Your task to perform on an android device: toggle show notifications on the lock screen Image 0: 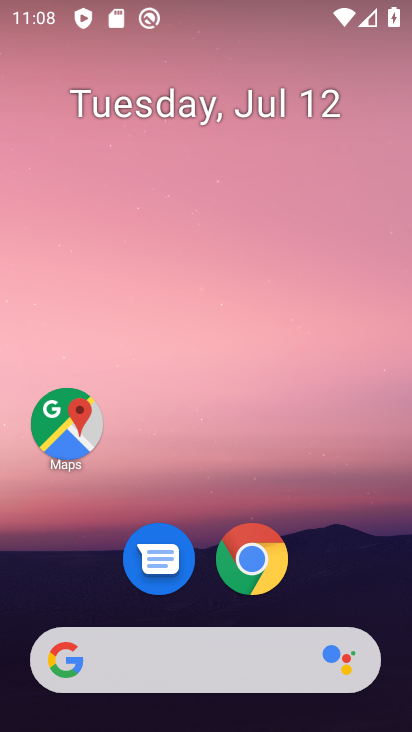
Step 0: drag from (167, 637) to (132, 102)
Your task to perform on an android device: toggle show notifications on the lock screen Image 1: 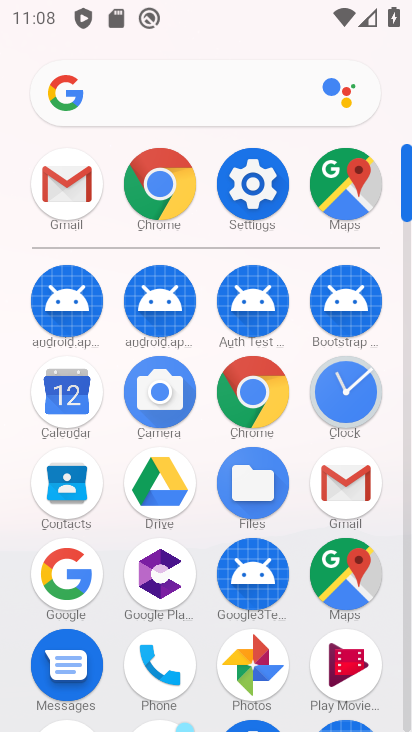
Step 1: drag from (153, 505) to (174, 301)
Your task to perform on an android device: toggle show notifications on the lock screen Image 2: 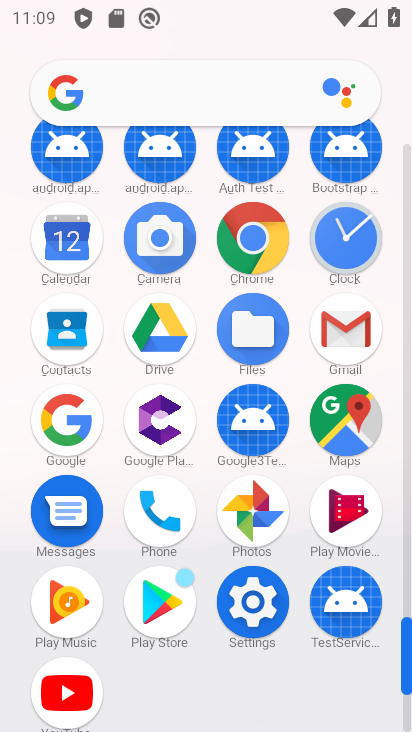
Step 2: click (261, 590)
Your task to perform on an android device: toggle show notifications on the lock screen Image 3: 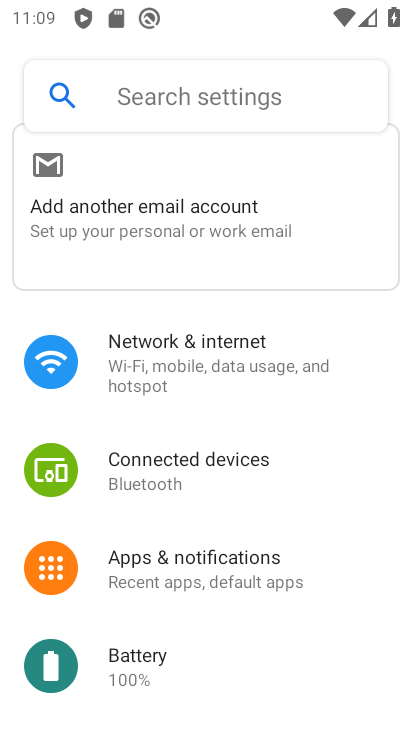
Step 3: click (168, 550)
Your task to perform on an android device: toggle show notifications on the lock screen Image 4: 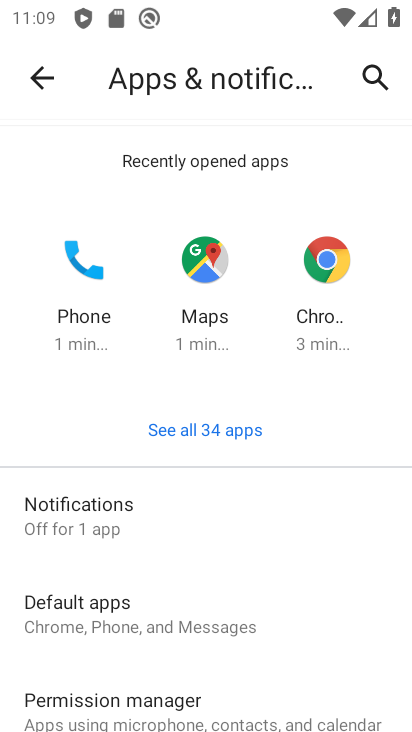
Step 4: click (85, 536)
Your task to perform on an android device: toggle show notifications on the lock screen Image 5: 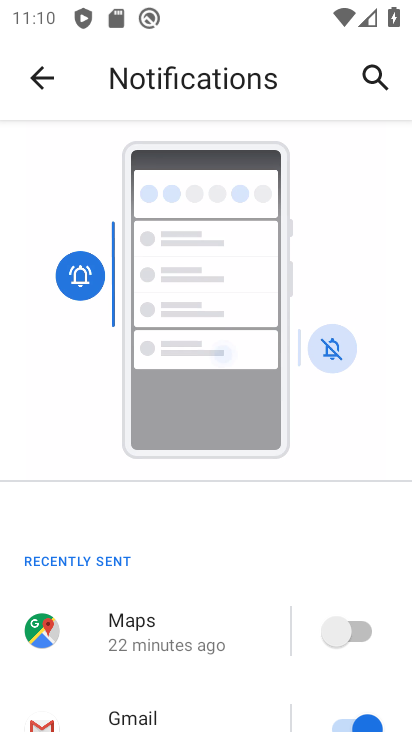
Step 5: drag from (106, 651) to (160, 255)
Your task to perform on an android device: toggle show notifications on the lock screen Image 6: 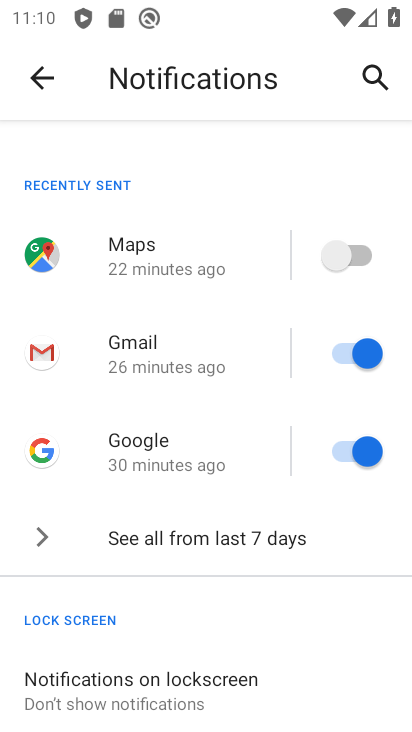
Step 6: click (145, 696)
Your task to perform on an android device: toggle show notifications on the lock screen Image 7: 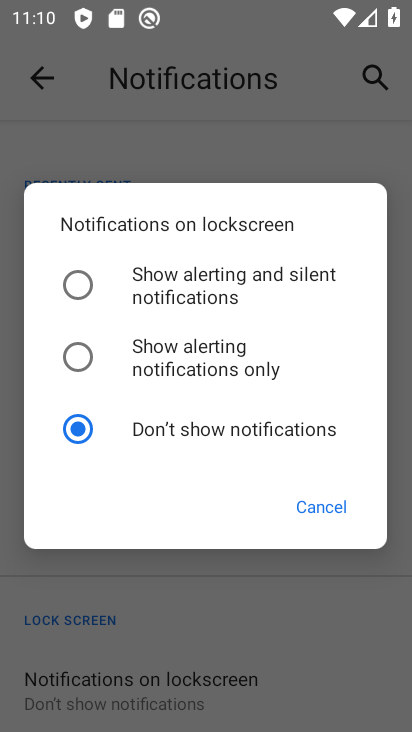
Step 7: click (73, 281)
Your task to perform on an android device: toggle show notifications on the lock screen Image 8: 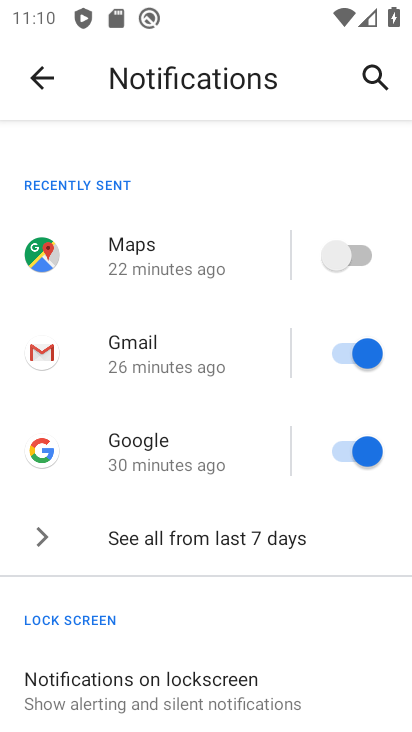
Step 8: task complete